Your task to perform on an android device: turn on airplane mode Image 0: 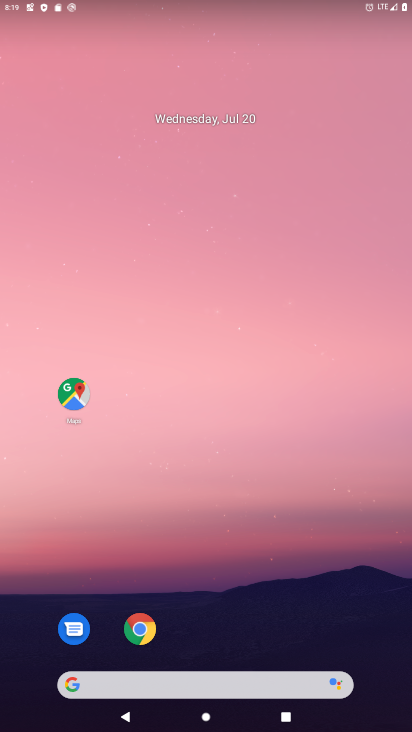
Step 0: drag from (201, 647) to (160, 218)
Your task to perform on an android device: turn on airplane mode Image 1: 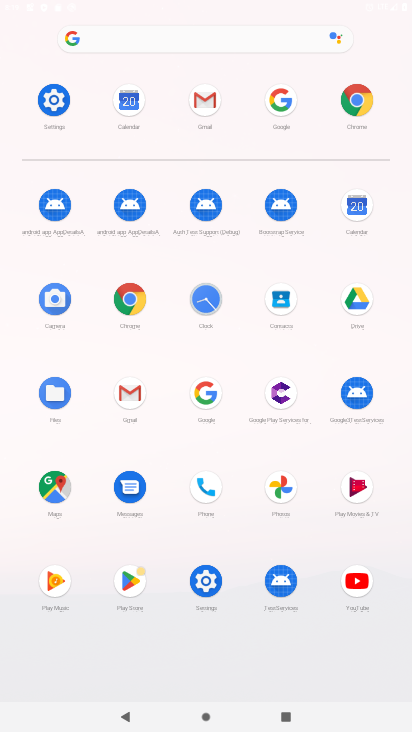
Step 1: click (46, 111)
Your task to perform on an android device: turn on airplane mode Image 2: 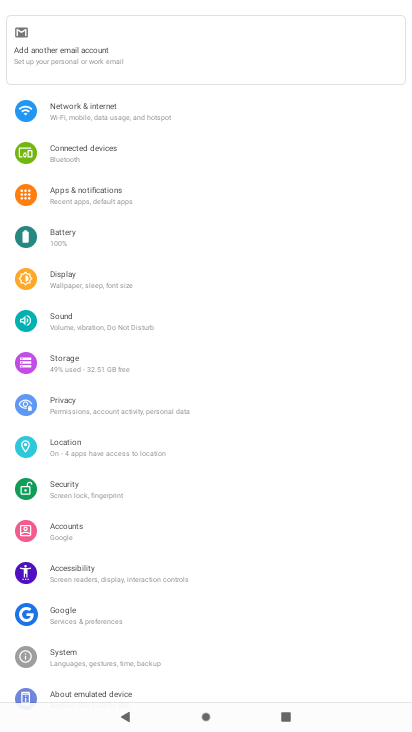
Step 2: click (94, 114)
Your task to perform on an android device: turn on airplane mode Image 3: 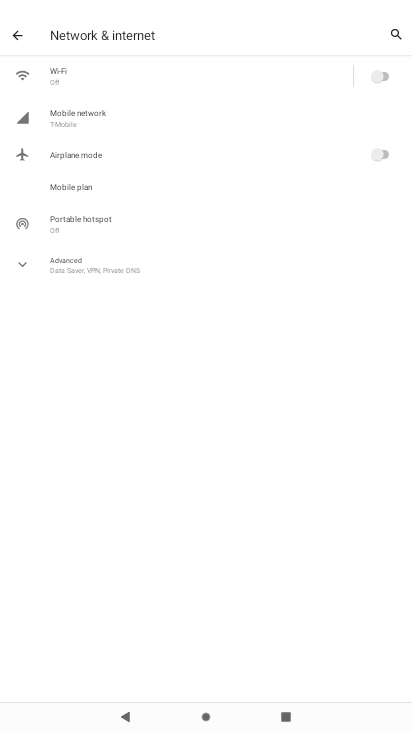
Step 3: click (396, 157)
Your task to perform on an android device: turn on airplane mode Image 4: 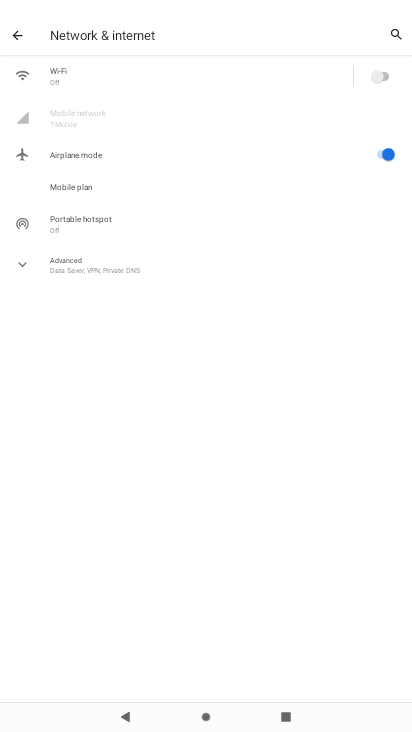
Step 4: task complete